Your task to perform on an android device: Is it going to rain this weekend? Image 0: 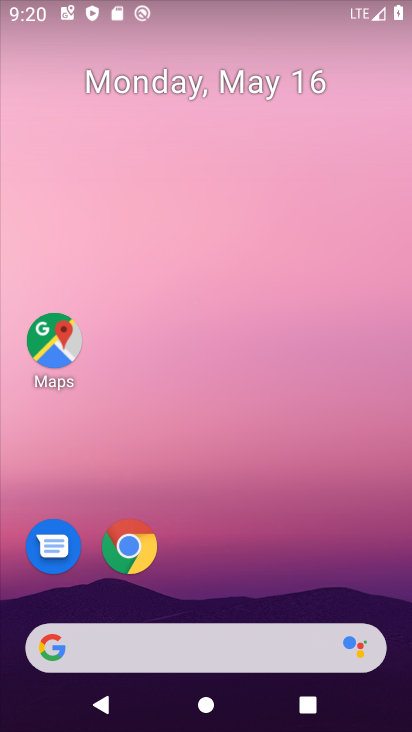
Step 0: drag from (290, 641) to (225, 130)
Your task to perform on an android device: Is it going to rain this weekend? Image 1: 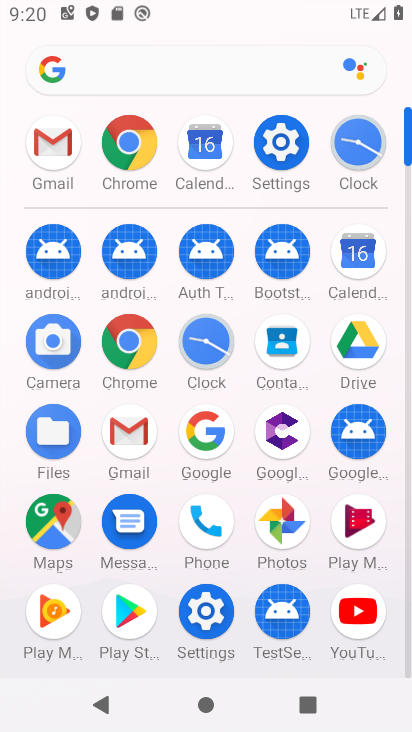
Step 1: click (131, 73)
Your task to perform on an android device: Is it going to rain this weekend? Image 2: 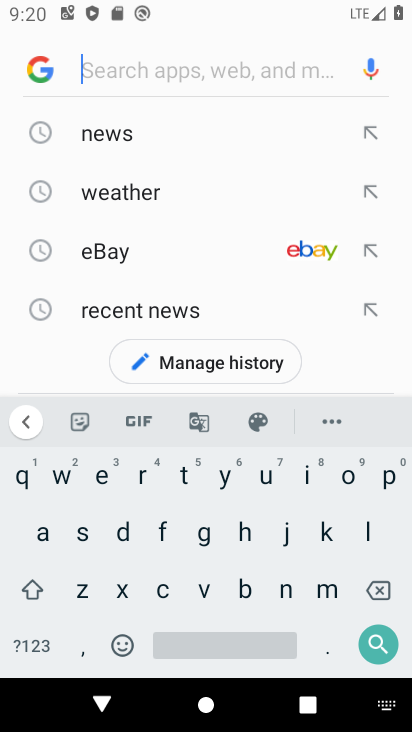
Step 2: click (143, 194)
Your task to perform on an android device: Is it going to rain this weekend? Image 3: 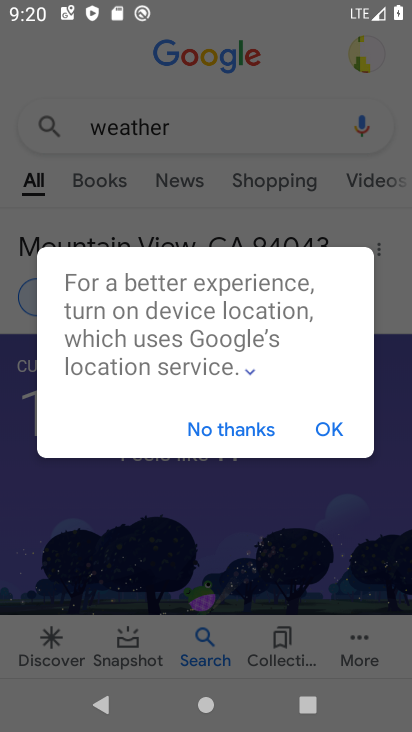
Step 3: click (260, 417)
Your task to perform on an android device: Is it going to rain this weekend? Image 4: 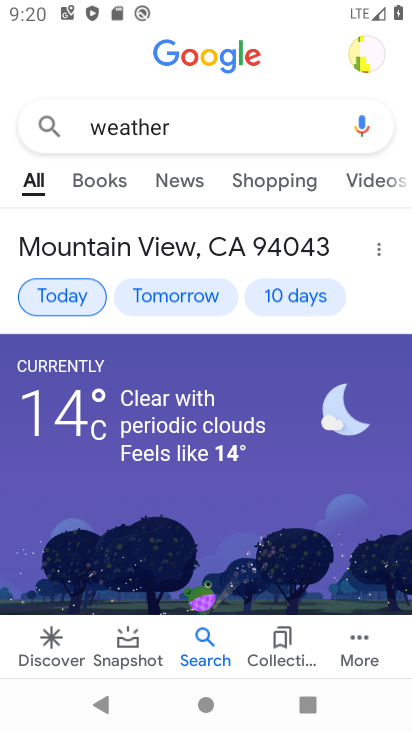
Step 4: click (282, 290)
Your task to perform on an android device: Is it going to rain this weekend? Image 5: 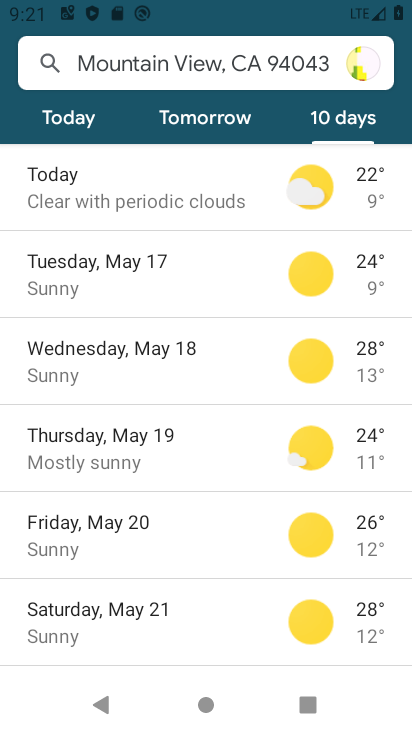
Step 5: task complete